Your task to perform on an android device: open app "Adobe Express: Graphic Design" Image 0: 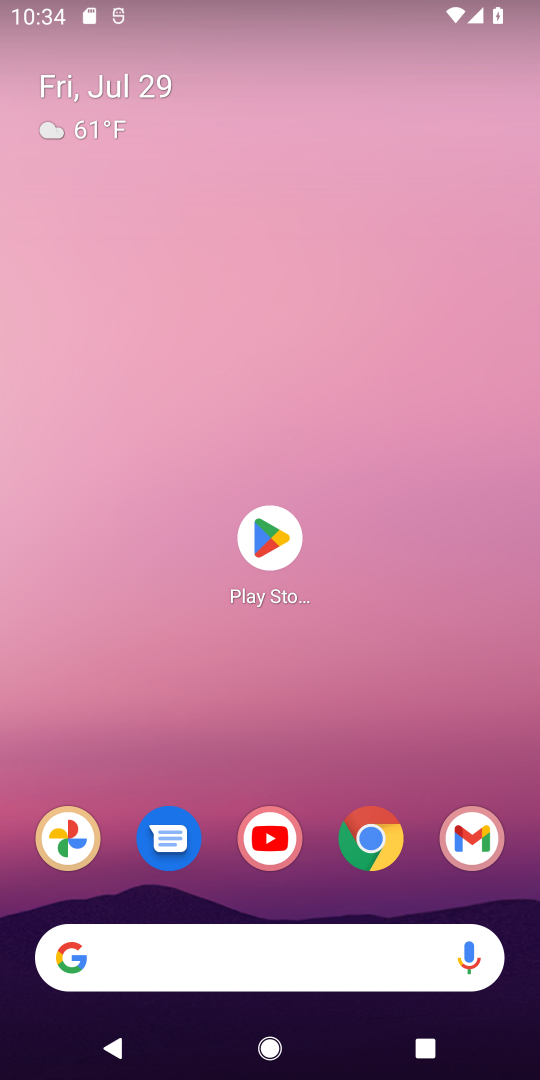
Step 0: click (266, 536)
Your task to perform on an android device: open app "Adobe Express: Graphic Design" Image 1: 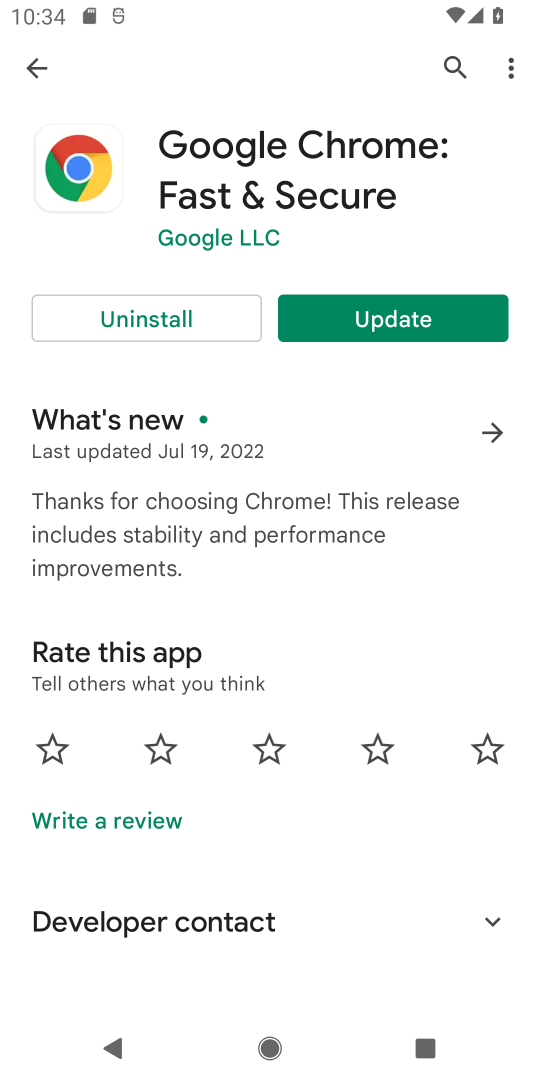
Step 1: click (444, 61)
Your task to perform on an android device: open app "Adobe Express: Graphic Design" Image 2: 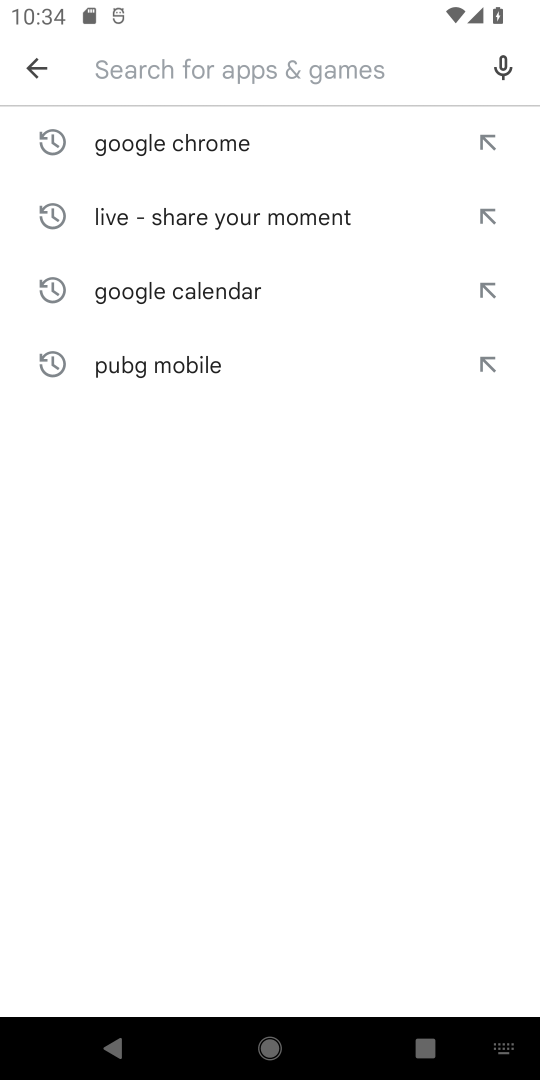
Step 2: type "Adobe Express: Graphic Design"
Your task to perform on an android device: open app "Adobe Express: Graphic Design" Image 3: 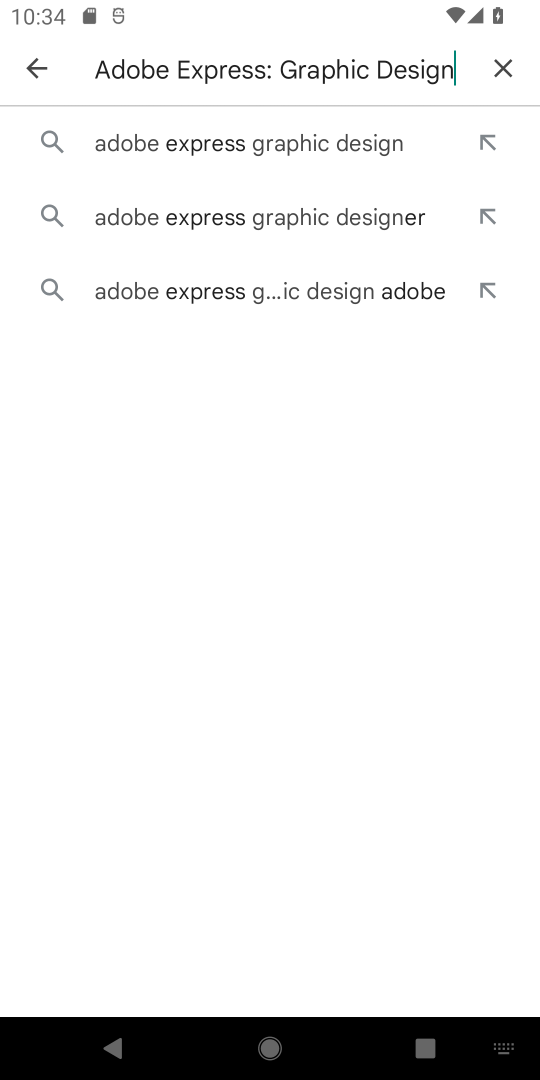
Step 3: click (270, 140)
Your task to perform on an android device: open app "Adobe Express: Graphic Design" Image 4: 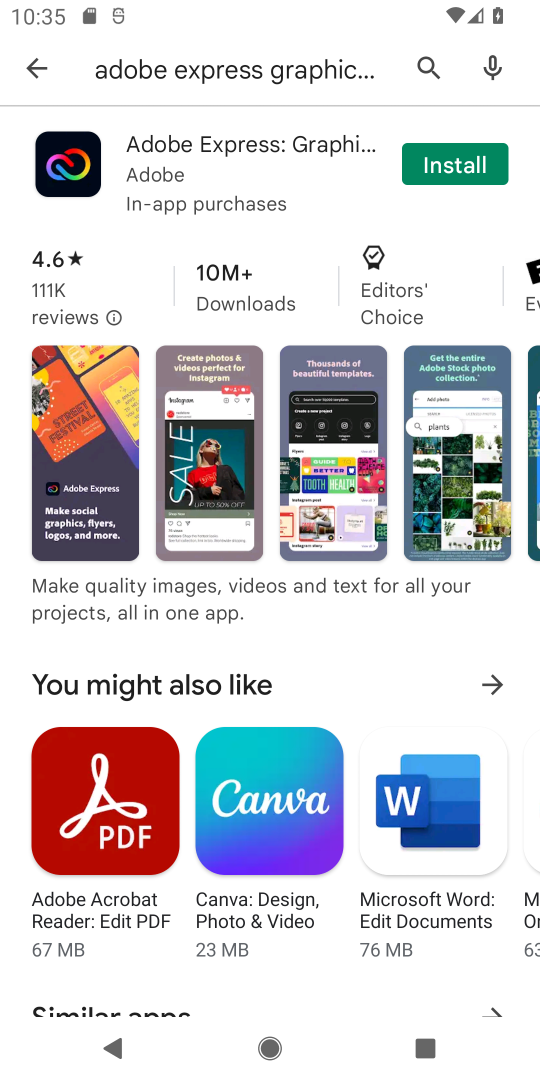
Step 4: task complete